Your task to perform on an android device: empty trash in the gmail app Image 0: 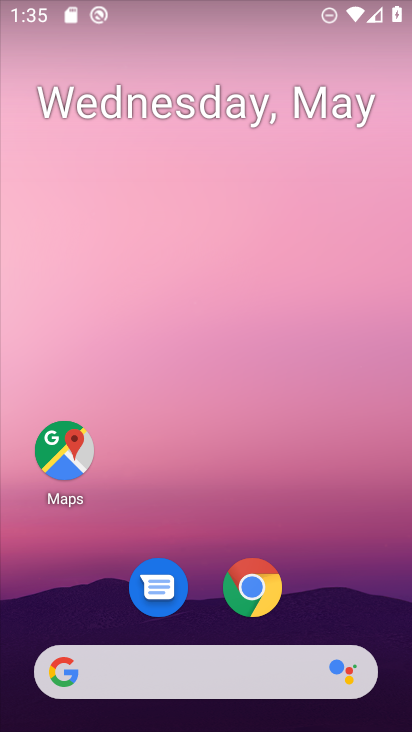
Step 0: drag from (314, 594) to (288, 159)
Your task to perform on an android device: empty trash in the gmail app Image 1: 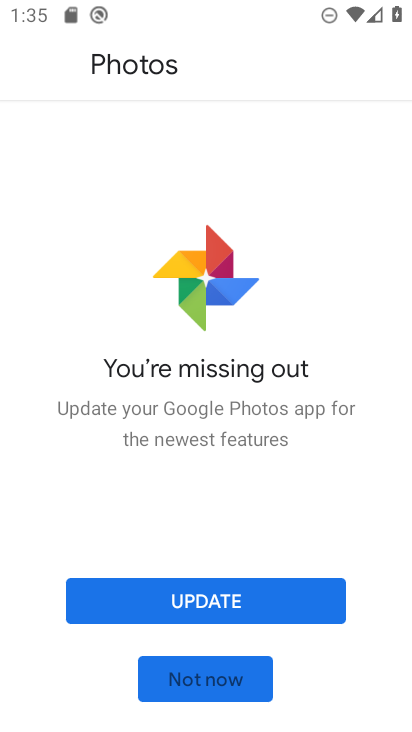
Step 1: click (228, 694)
Your task to perform on an android device: empty trash in the gmail app Image 2: 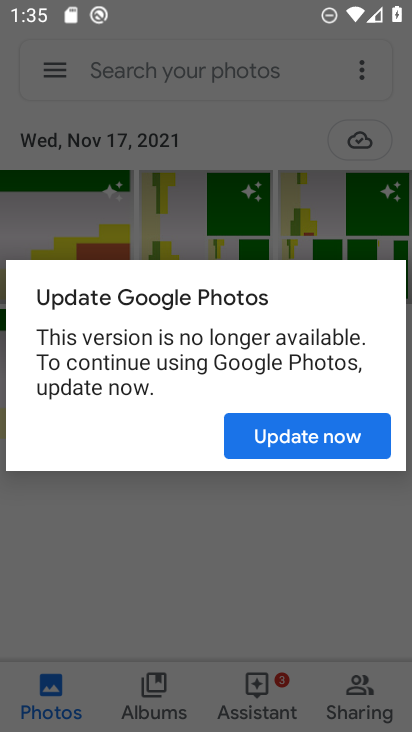
Step 2: click (321, 436)
Your task to perform on an android device: empty trash in the gmail app Image 3: 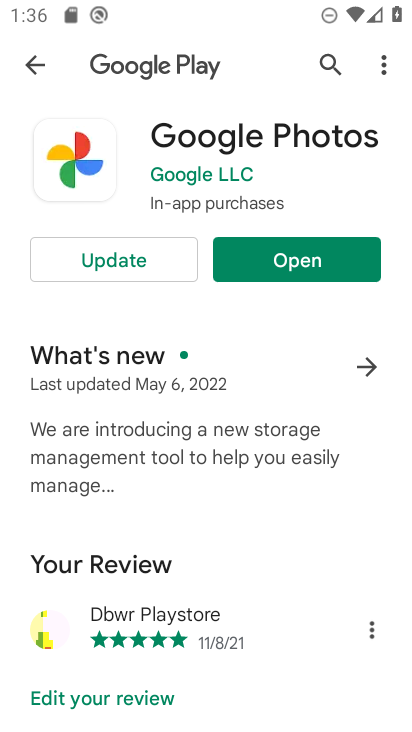
Step 3: press home button
Your task to perform on an android device: empty trash in the gmail app Image 4: 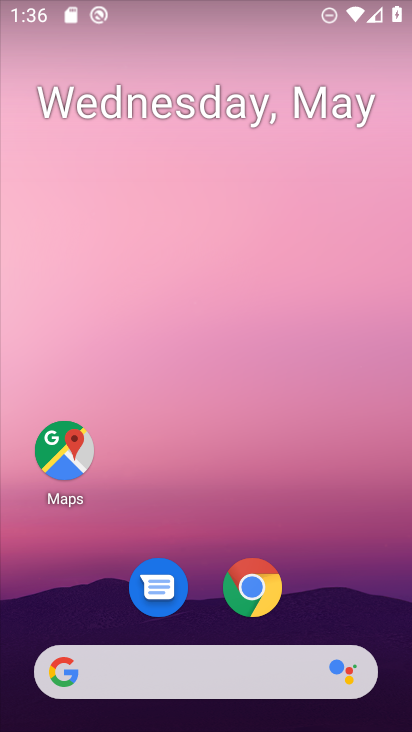
Step 4: drag from (337, 564) to (329, 247)
Your task to perform on an android device: empty trash in the gmail app Image 5: 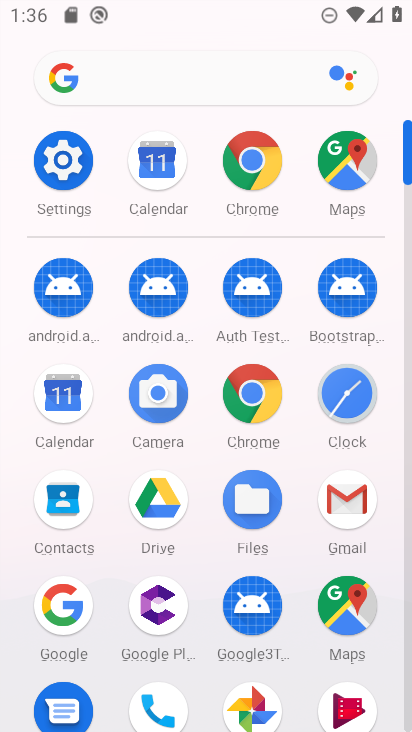
Step 5: click (339, 504)
Your task to perform on an android device: empty trash in the gmail app Image 6: 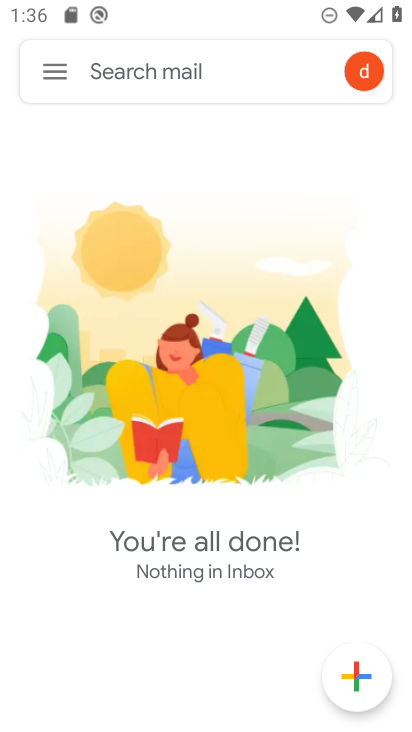
Step 6: click (40, 76)
Your task to perform on an android device: empty trash in the gmail app Image 7: 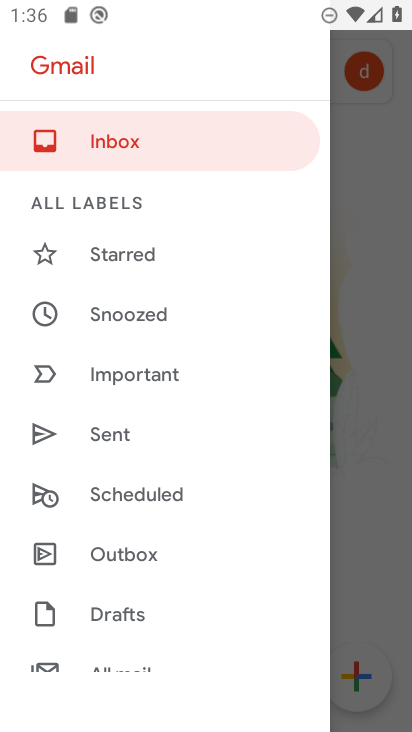
Step 7: drag from (134, 600) to (140, 340)
Your task to perform on an android device: empty trash in the gmail app Image 8: 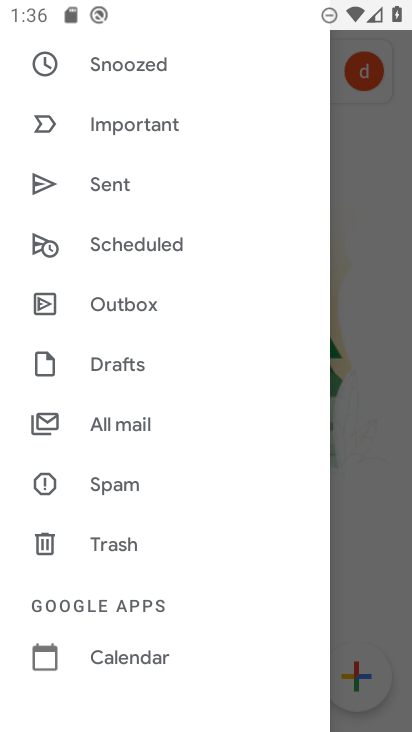
Step 8: click (120, 554)
Your task to perform on an android device: empty trash in the gmail app Image 9: 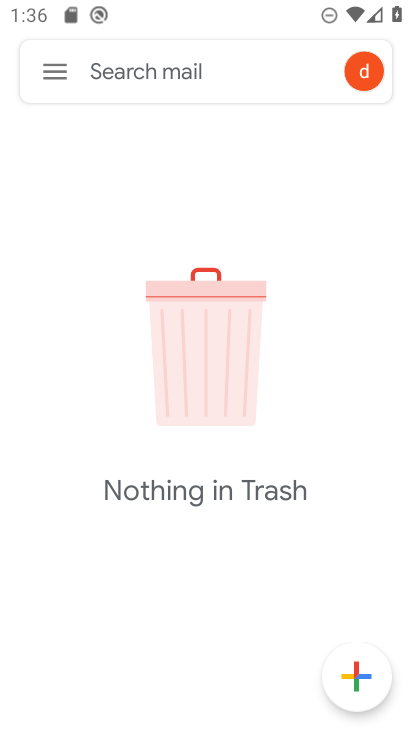
Step 9: task complete